Your task to perform on an android device: Open eBay Image 0: 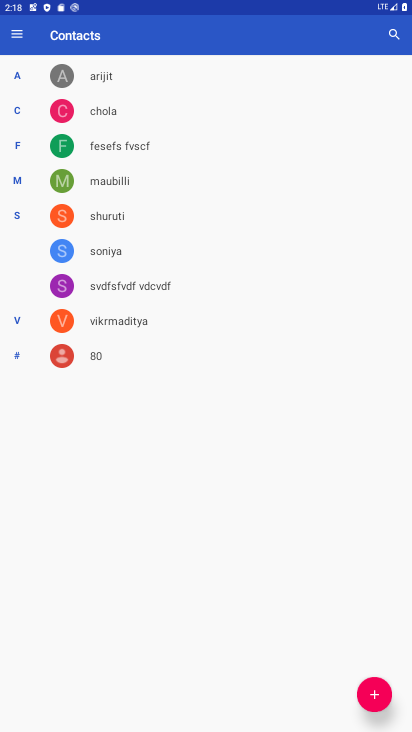
Step 0: press home button
Your task to perform on an android device: Open eBay Image 1: 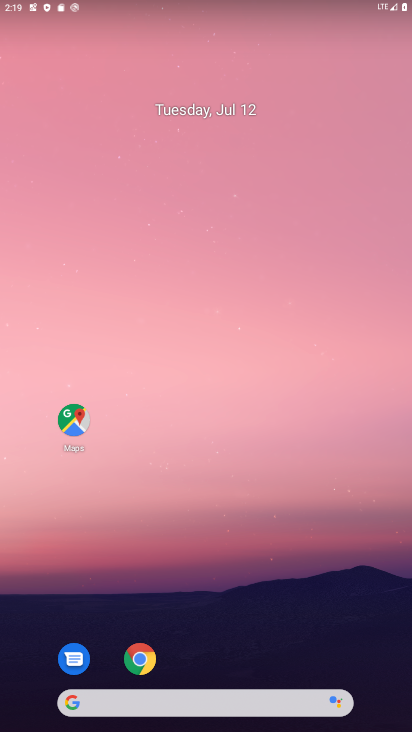
Step 1: click (144, 661)
Your task to perform on an android device: Open eBay Image 2: 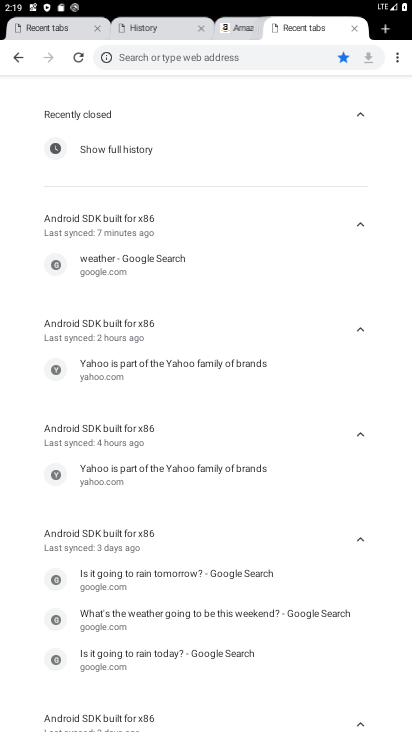
Step 2: click (397, 60)
Your task to perform on an android device: Open eBay Image 3: 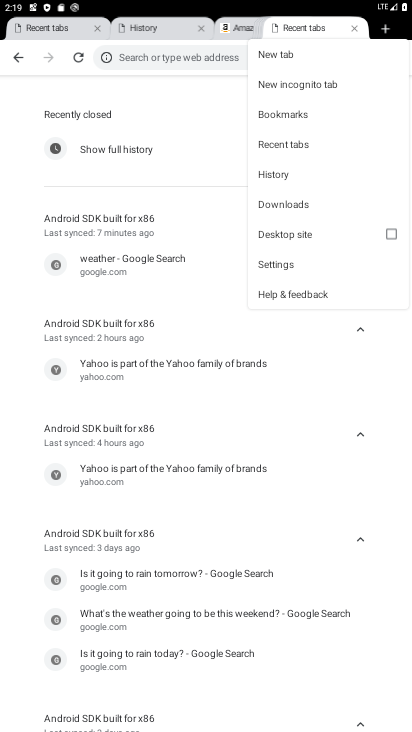
Step 3: click (290, 54)
Your task to perform on an android device: Open eBay Image 4: 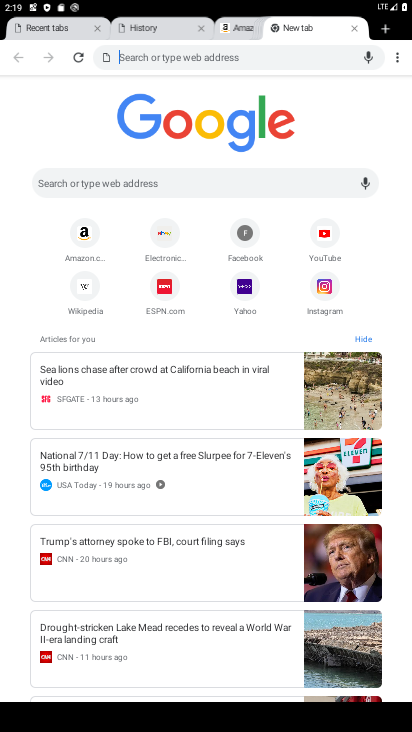
Step 4: click (236, 184)
Your task to perform on an android device: Open eBay Image 5: 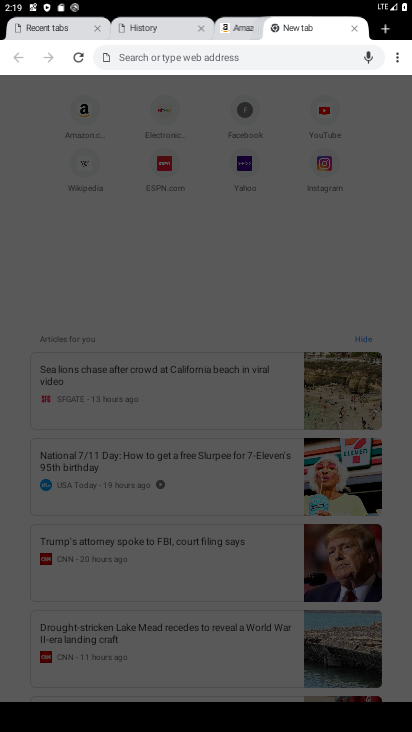
Step 5: type "eBay"
Your task to perform on an android device: Open eBay Image 6: 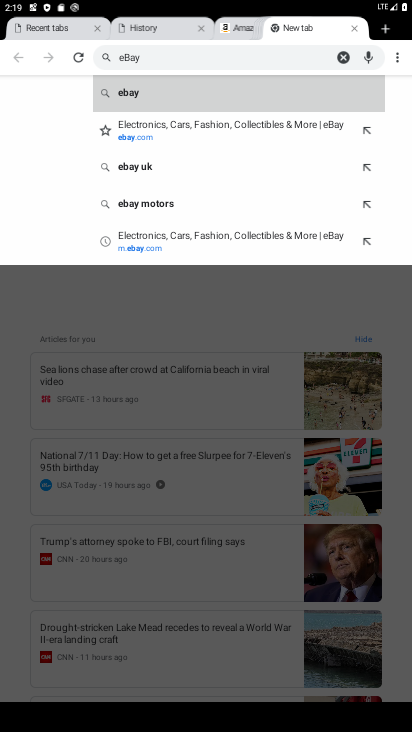
Step 6: click (134, 84)
Your task to perform on an android device: Open eBay Image 7: 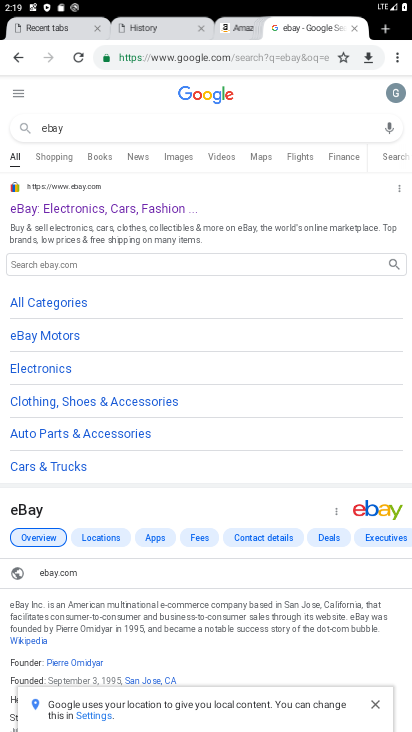
Step 7: click (74, 202)
Your task to perform on an android device: Open eBay Image 8: 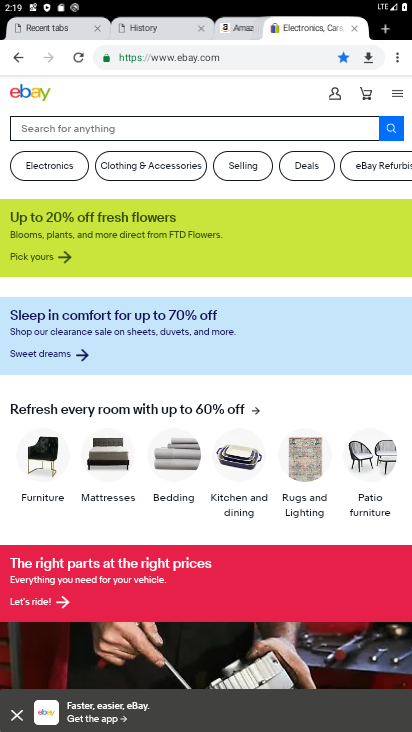
Step 8: task complete